Your task to perform on an android device: turn off smart reply in the gmail app Image 0: 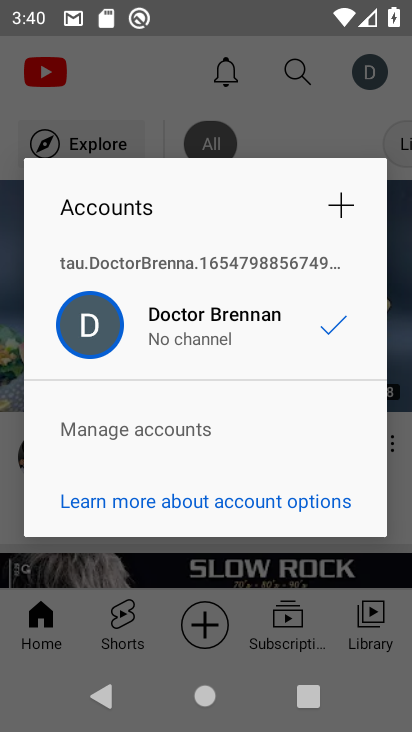
Step 0: press home button
Your task to perform on an android device: turn off smart reply in the gmail app Image 1: 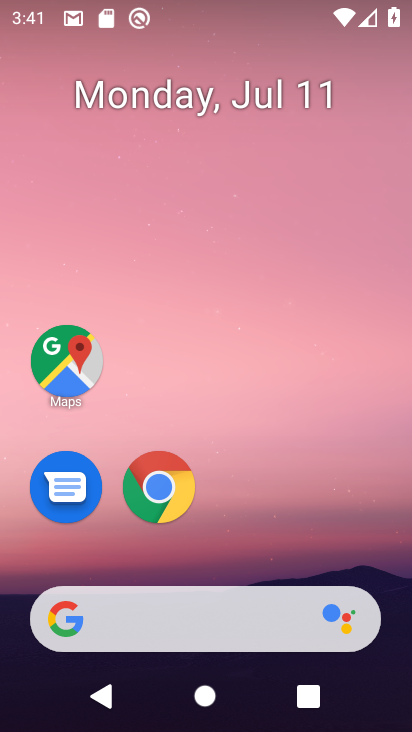
Step 1: drag from (144, 625) to (312, 137)
Your task to perform on an android device: turn off smart reply in the gmail app Image 2: 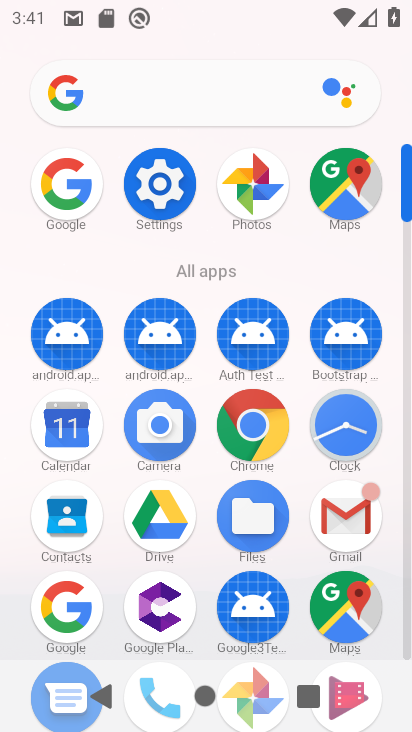
Step 2: click (339, 507)
Your task to perform on an android device: turn off smart reply in the gmail app Image 3: 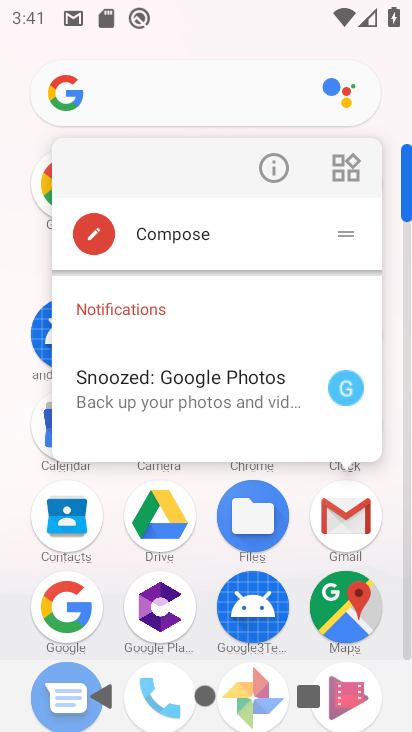
Step 3: click (347, 511)
Your task to perform on an android device: turn off smart reply in the gmail app Image 4: 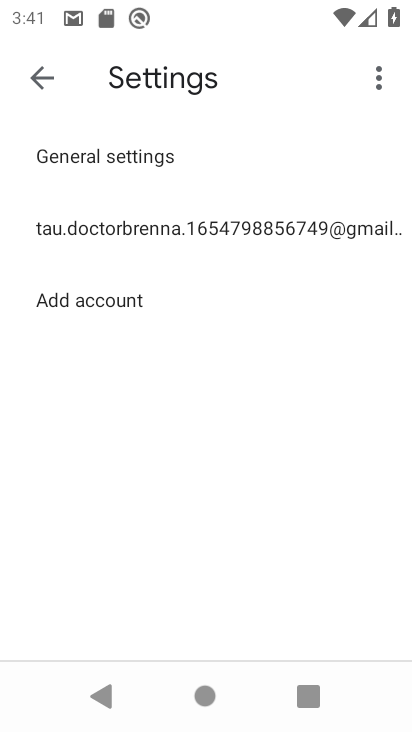
Step 4: click (182, 220)
Your task to perform on an android device: turn off smart reply in the gmail app Image 5: 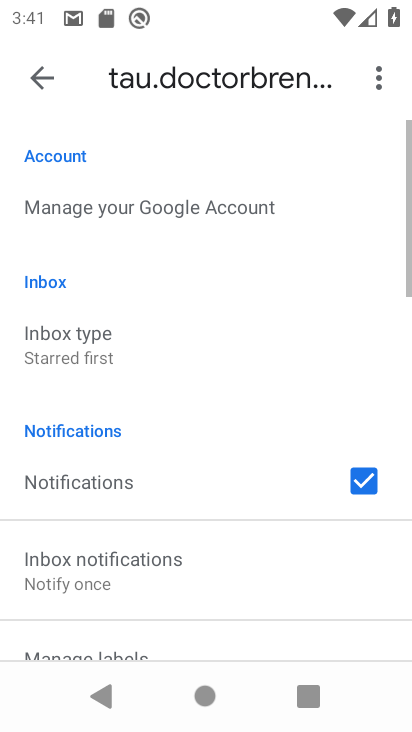
Step 5: drag from (216, 535) to (355, 58)
Your task to perform on an android device: turn off smart reply in the gmail app Image 6: 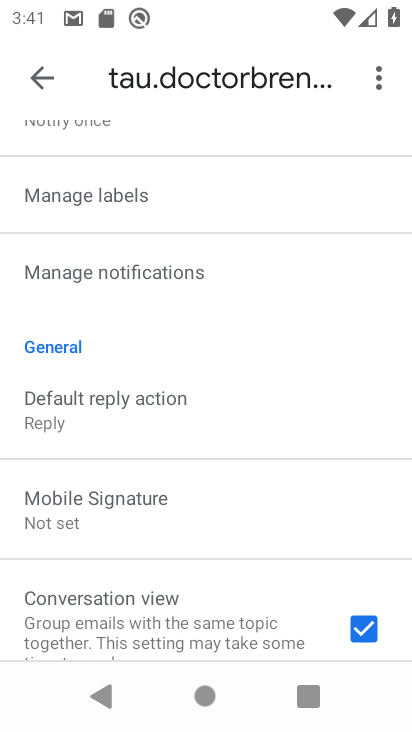
Step 6: drag from (230, 576) to (387, 80)
Your task to perform on an android device: turn off smart reply in the gmail app Image 7: 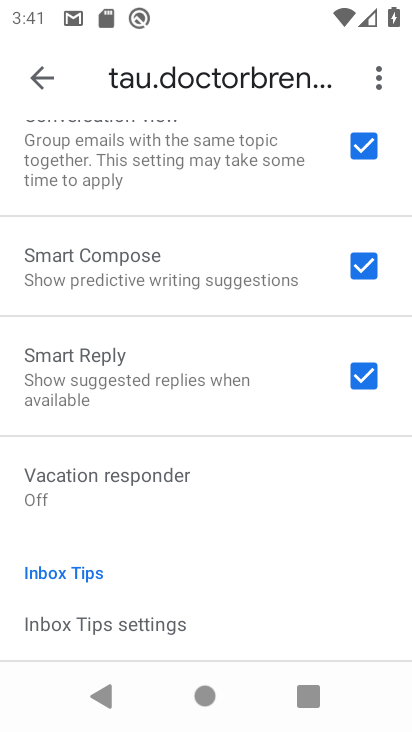
Step 7: click (363, 372)
Your task to perform on an android device: turn off smart reply in the gmail app Image 8: 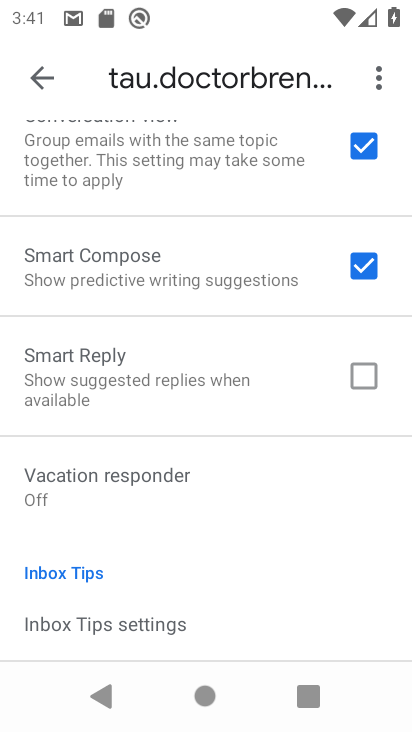
Step 8: task complete